Your task to perform on an android device: toggle improve location accuracy Image 0: 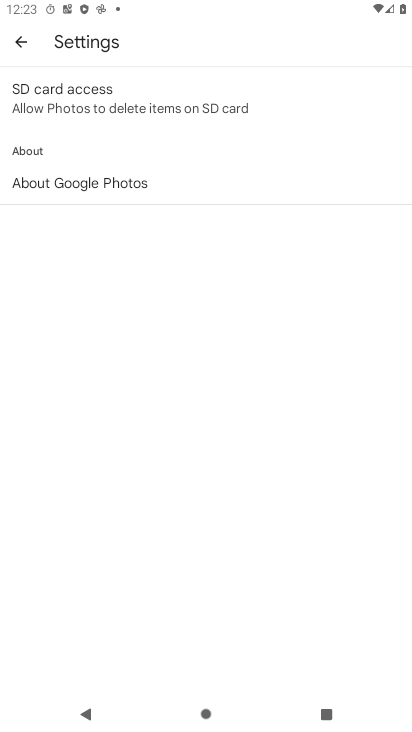
Step 0: press home button
Your task to perform on an android device: toggle improve location accuracy Image 1: 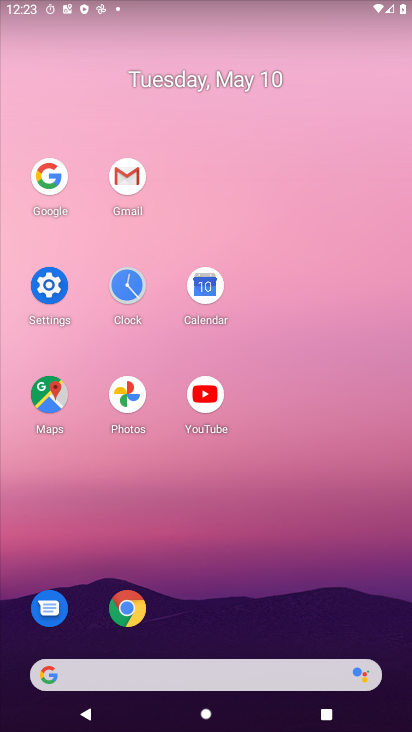
Step 1: click (49, 281)
Your task to perform on an android device: toggle improve location accuracy Image 2: 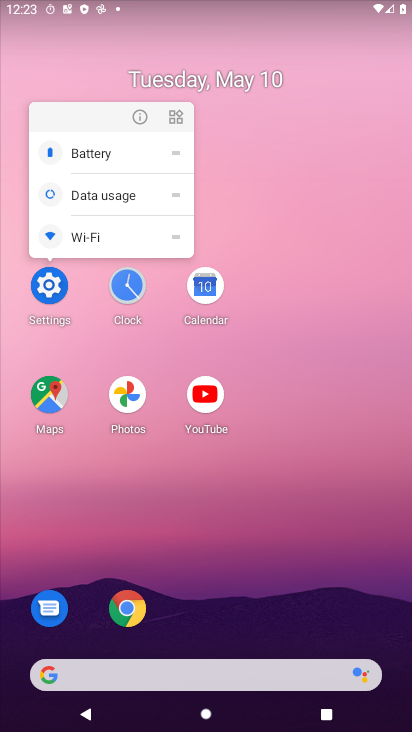
Step 2: click (49, 281)
Your task to perform on an android device: toggle improve location accuracy Image 3: 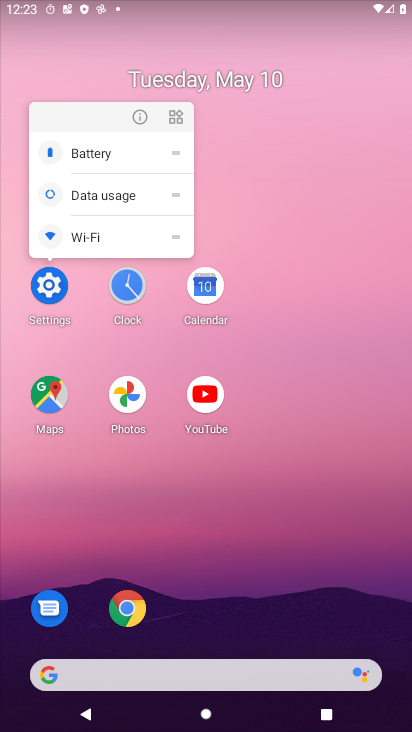
Step 3: click (49, 281)
Your task to perform on an android device: toggle improve location accuracy Image 4: 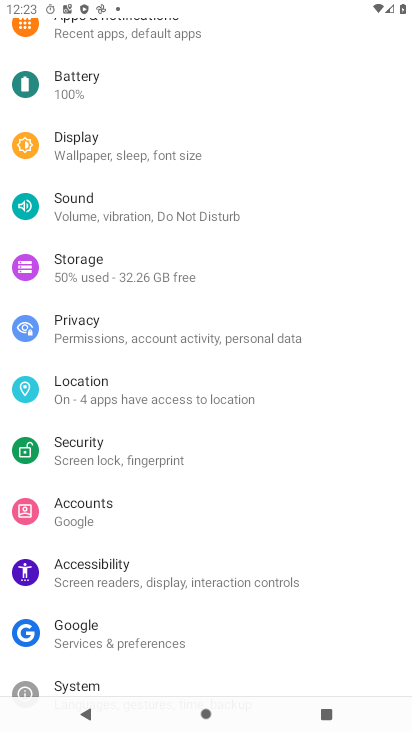
Step 4: click (109, 384)
Your task to perform on an android device: toggle improve location accuracy Image 5: 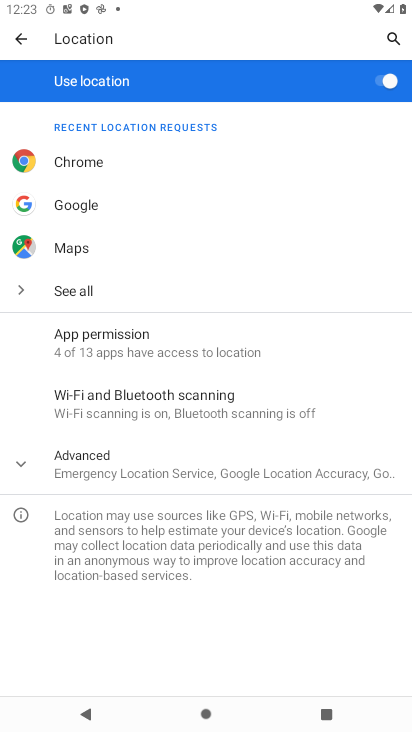
Step 5: click (111, 479)
Your task to perform on an android device: toggle improve location accuracy Image 6: 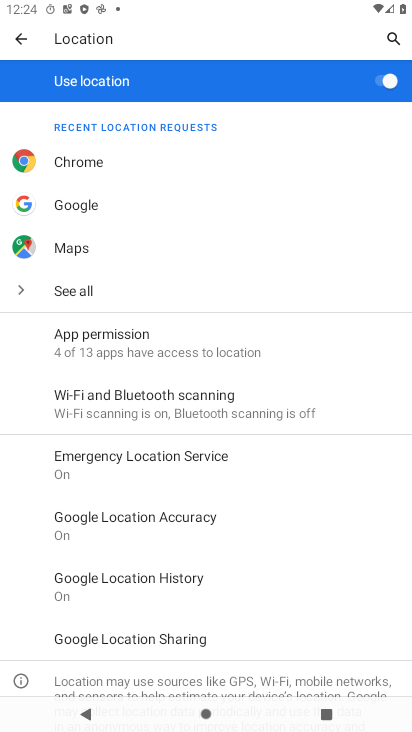
Step 6: click (177, 513)
Your task to perform on an android device: toggle improve location accuracy Image 7: 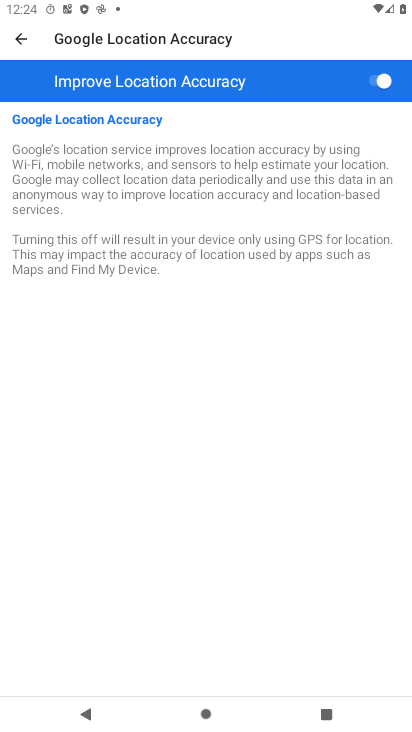
Step 7: click (375, 85)
Your task to perform on an android device: toggle improve location accuracy Image 8: 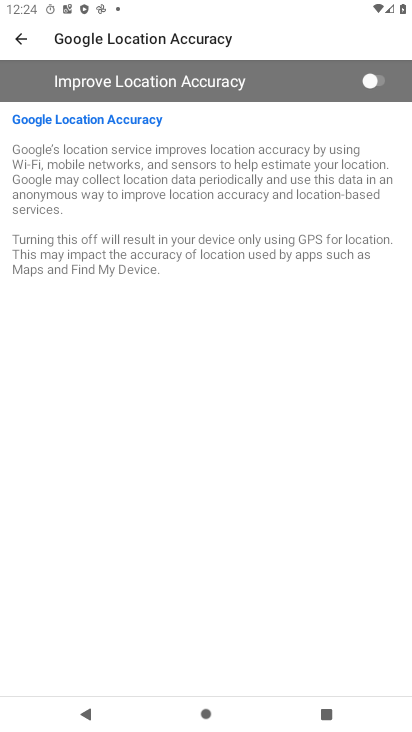
Step 8: task complete